Your task to perform on an android device: What's the news? Image 0: 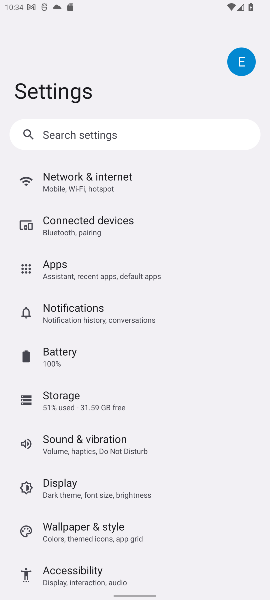
Step 0: press home button
Your task to perform on an android device: What's the news? Image 1: 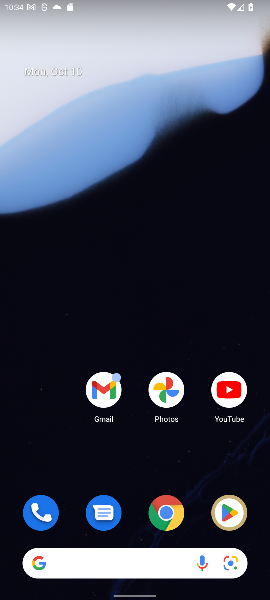
Step 1: click (124, 561)
Your task to perform on an android device: What's the news? Image 2: 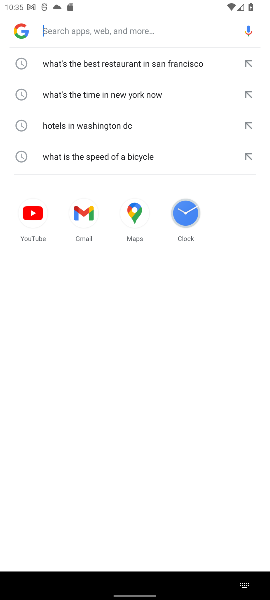
Step 2: type "What's the news?"
Your task to perform on an android device: What's the news? Image 3: 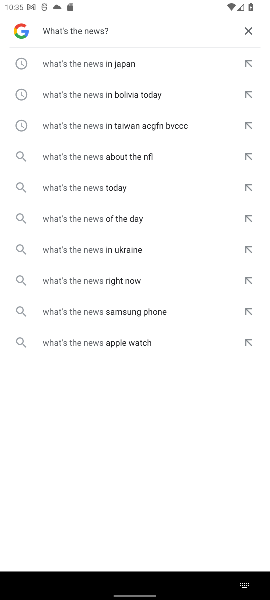
Step 3: click (92, 192)
Your task to perform on an android device: What's the news? Image 4: 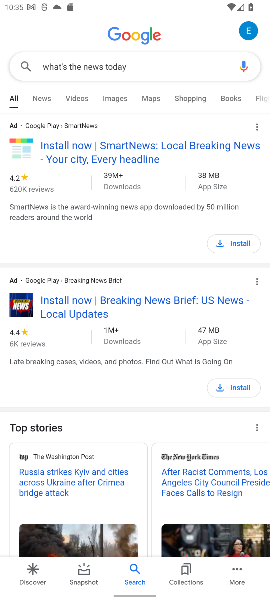
Step 4: task complete